Your task to perform on an android device: When is my next meeting? Image 0: 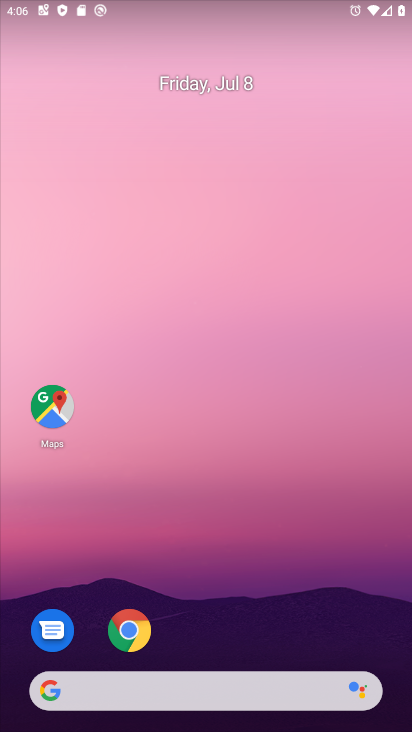
Step 0: drag from (223, 659) to (168, 76)
Your task to perform on an android device: When is my next meeting? Image 1: 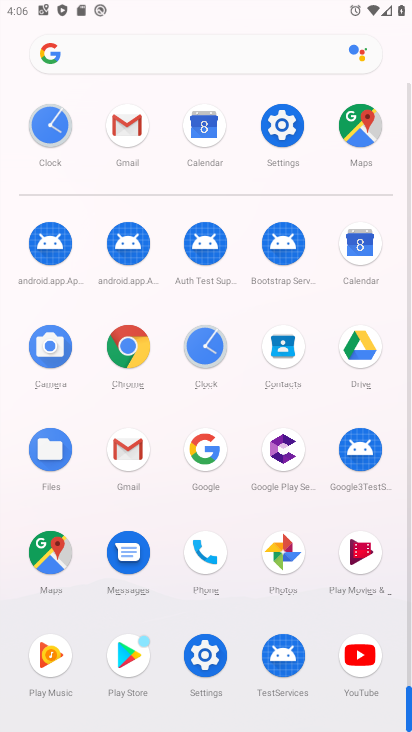
Step 1: click (360, 243)
Your task to perform on an android device: When is my next meeting? Image 2: 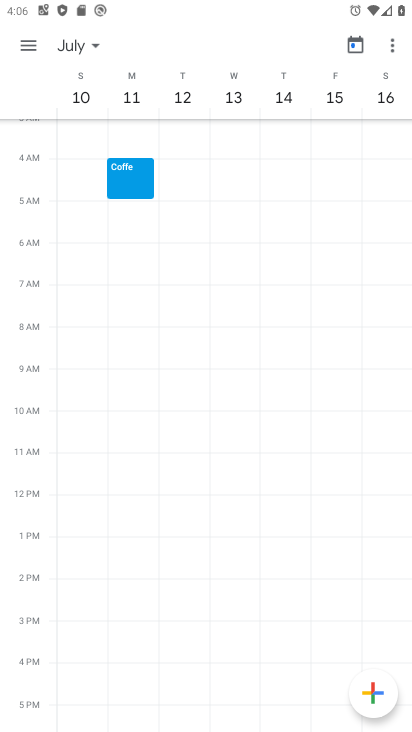
Step 2: click (359, 46)
Your task to perform on an android device: When is my next meeting? Image 3: 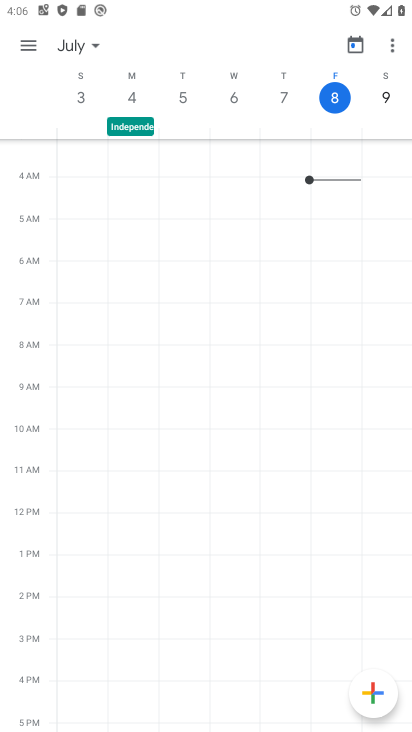
Step 3: click (93, 44)
Your task to perform on an android device: When is my next meeting? Image 4: 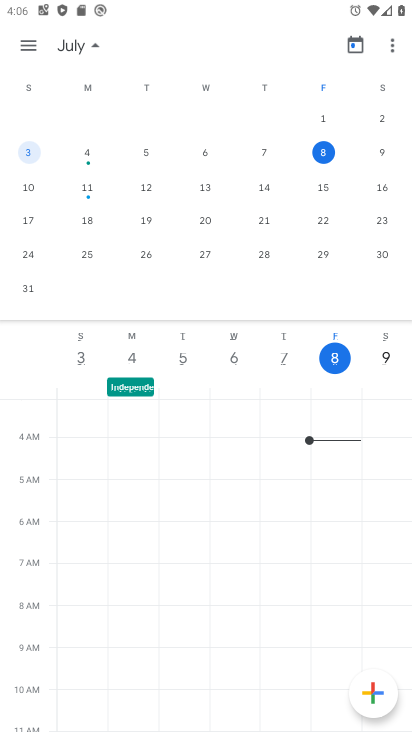
Step 4: click (88, 197)
Your task to perform on an android device: When is my next meeting? Image 5: 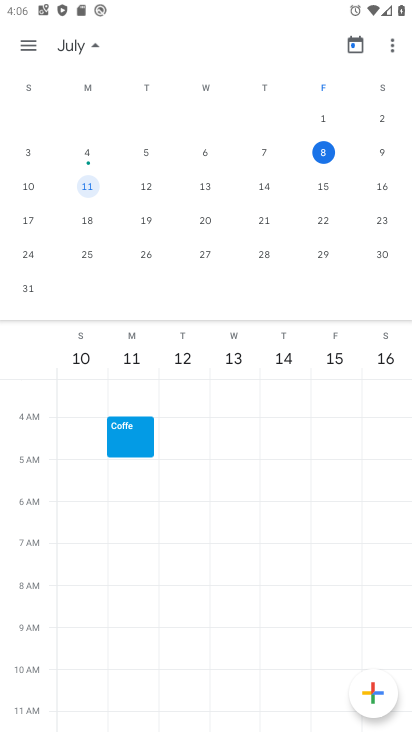
Step 5: click (32, 49)
Your task to perform on an android device: When is my next meeting? Image 6: 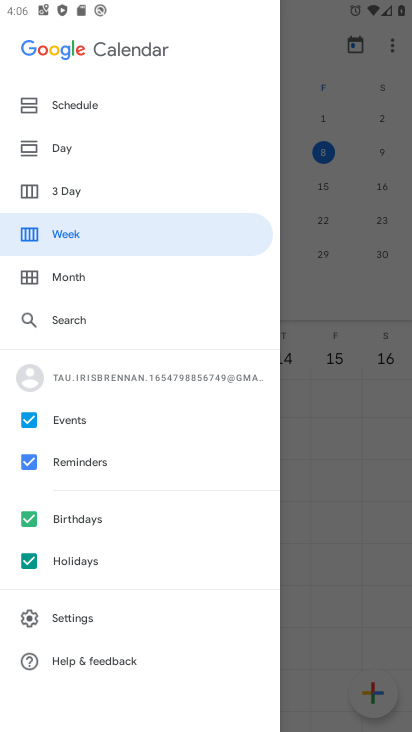
Step 6: click (73, 224)
Your task to perform on an android device: When is my next meeting? Image 7: 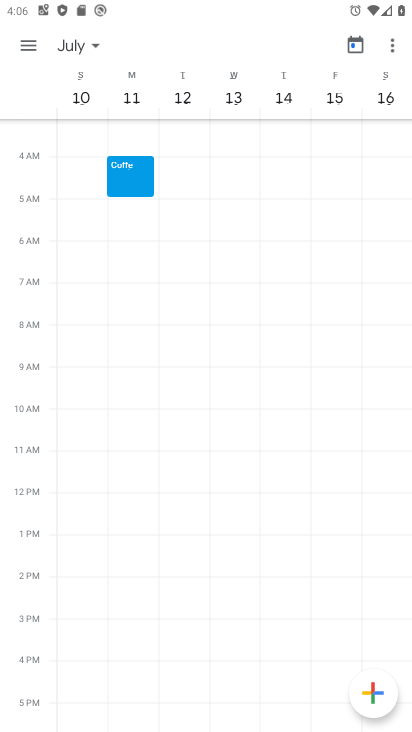
Step 7: task complete